Your task to perform on an android device: turn on priority inbox in the gmail app Image 0: 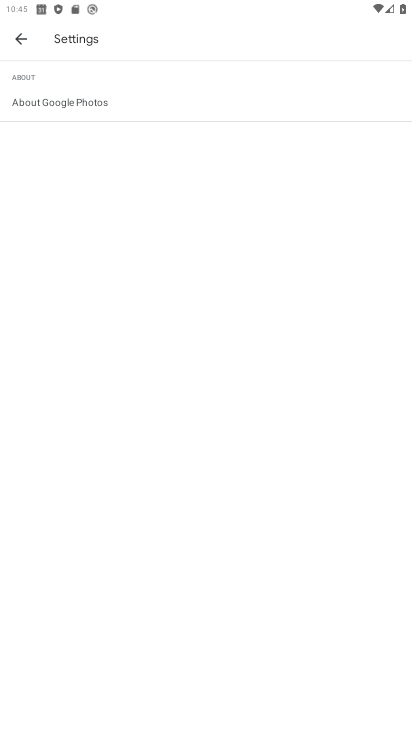
Step 0: press home button
Your task to perform on an android device: turn on priority inbox in the gmail app Image 1: 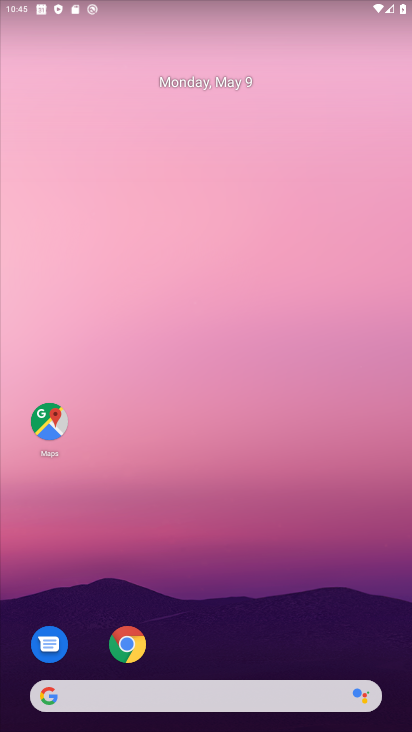
Step 1: drag from (217, 654) to (284, 185)
Your task to perform on an android device: turn on priority inbox in the gmail app Image 2: 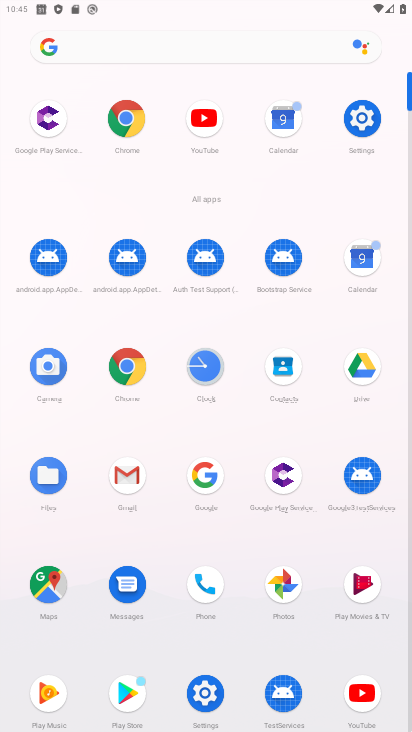
Step 2: click (130, 476)
Your task to perform on an android device: turn on priority inbox in the gmail app Image 3: 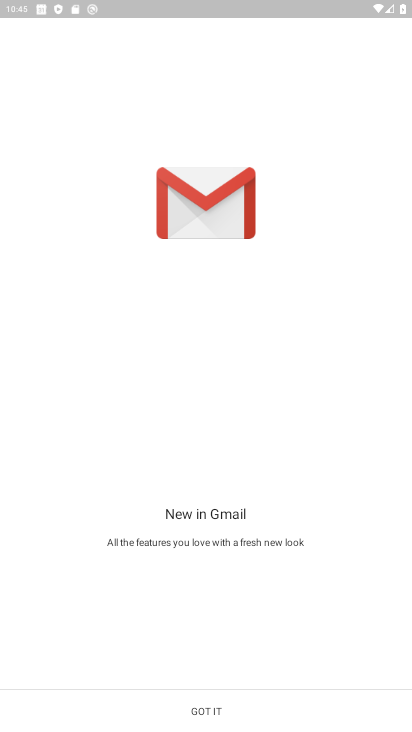
Step 3: click (256, 715)
Your task to perform on an android device: turn on priority inbox in the gmail app Image 4: 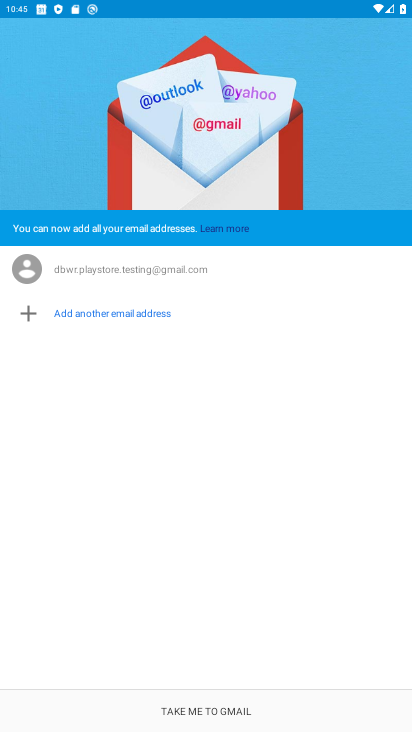
Step 4: click (228, 704)
Your task to perform on an android device: turn on priority inbox in the gmail app Image 5: 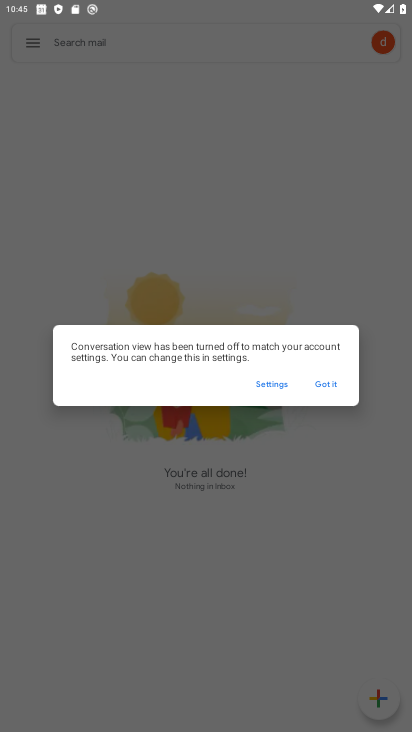
Step 5: click (327, 383)
Your task to perform on an android device: turn on priority inbox in the gmail app Image 6: 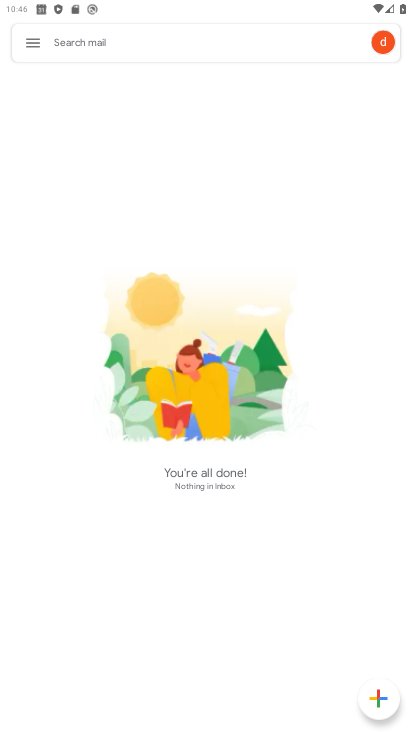
Step 6: click (36, 35)
Your task to perform on an android device: turn on priority inbox in the gmail app Image 7: 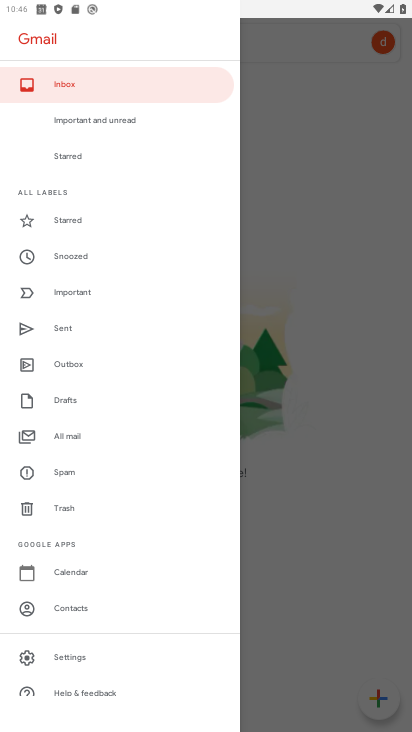
Step 7: drag from (144, 647) to (183, 238)
Your task to perform on an android device: turn on priority inbox in the gmail app Image 8: 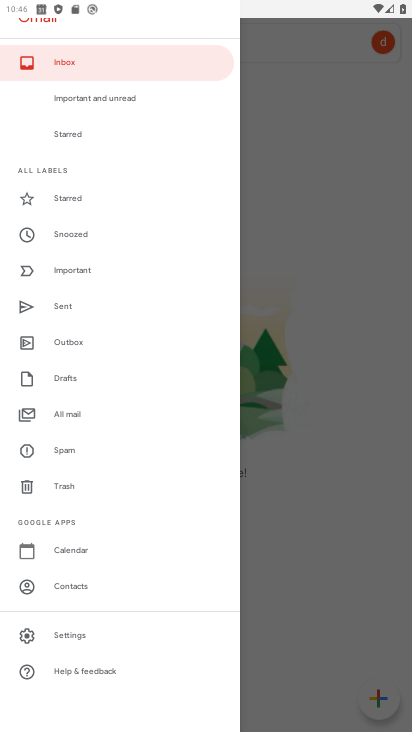
Step 8: click (73, 635)
Your task to perform on an android device: turn on priority inbox in the gmail app Image 9: 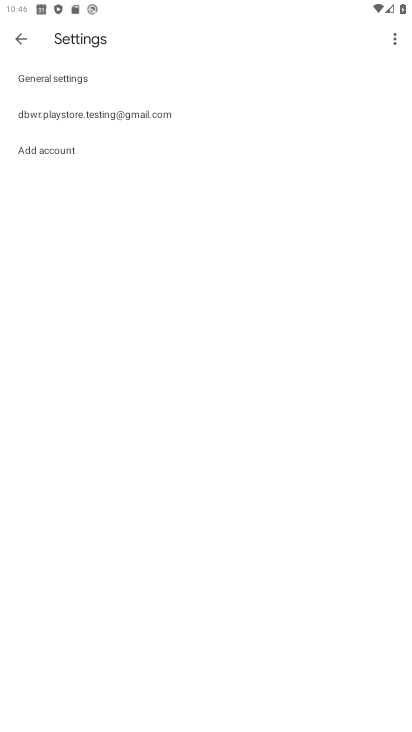
Step 9: click (90, 117)
Your task to perform on an android device: turn on priority inbox in the gmail app Image 10: 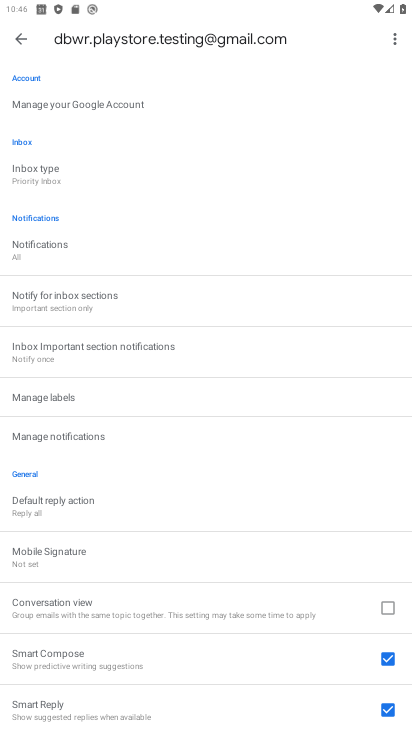
Step 10: click (70, 178)
Your task to perform on an android device: turn on priority inbox in the gmail app Image 11: 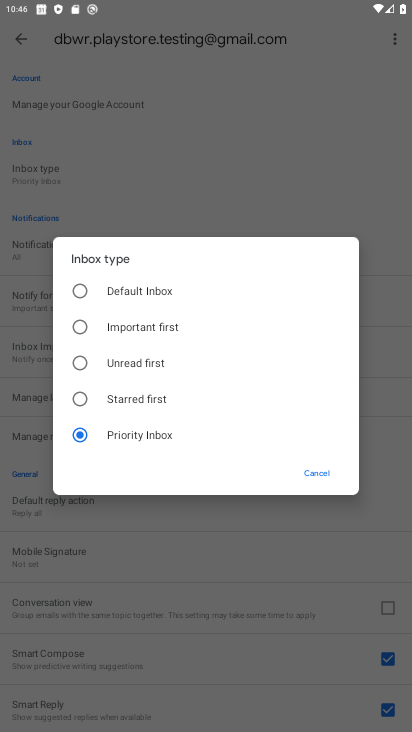
Step 11: task complete